Your task to perform on an android device: check the backup settings in the google photos Image 0: 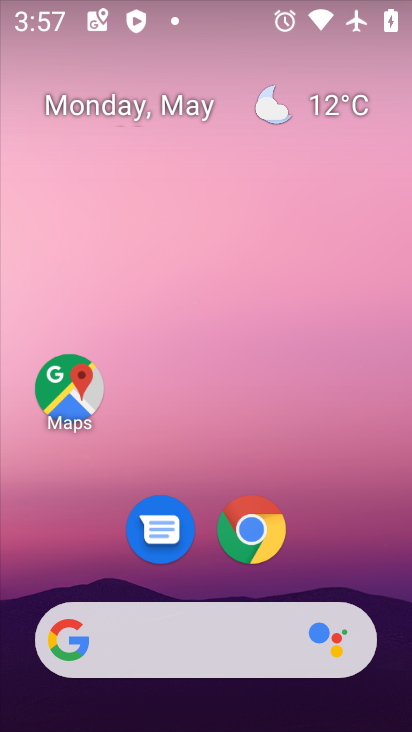
Step 0: drag from (296, 597) to (288, 75)
Your task to perform on an android device: check the backup settings in the google photos Image 1: 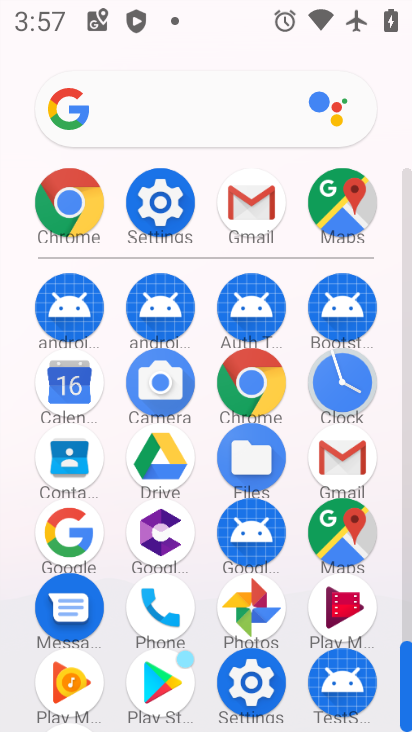
Step 1: click (255, 605)
Your task to perform on an android device: check the backup settings in the google photos Image 2: 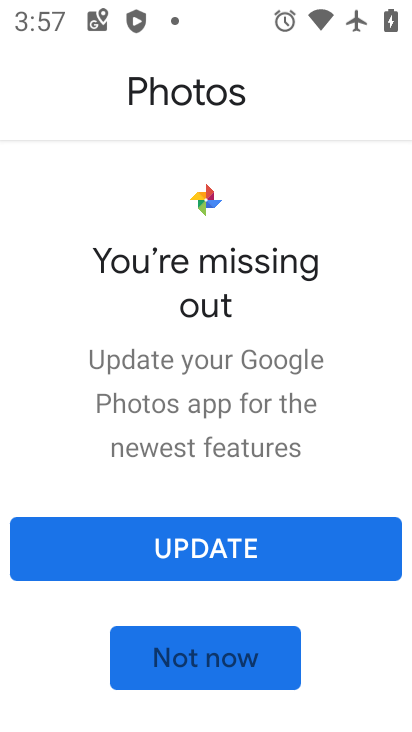
Step 2: click (237, 567)
Your task to perform on an android device: check the backup settings in the google photos Image 3: 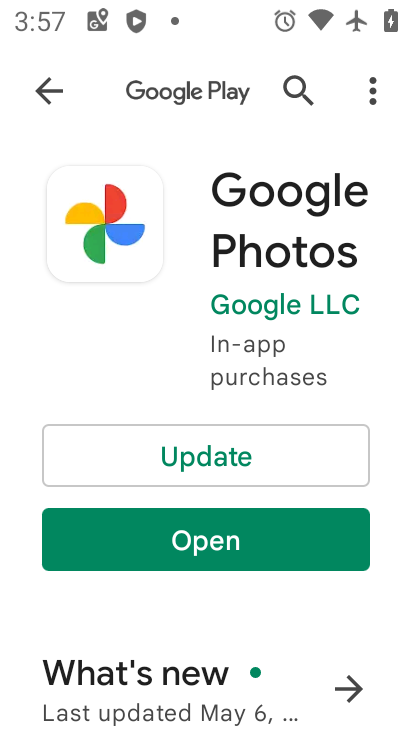
Step 3: click (220, 458)
Your task to perform on an android device: check the backup settings in the google photos Image 4: 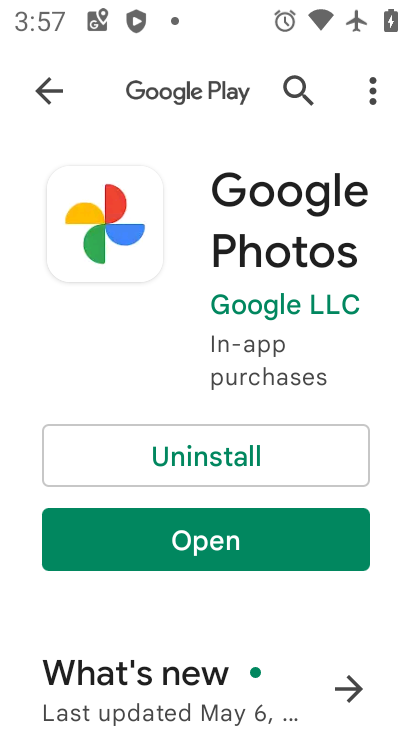
Step 4: click (207, 543)
Your task to perform on an android device: check the backup settings in the google photos Image 5: 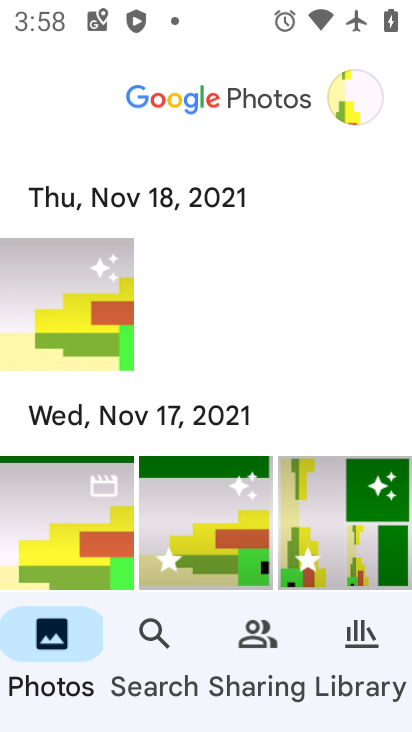
Step 5: click (365, 100)
Your task to perform on an android device: check the backup settings in the google photos Image 6: 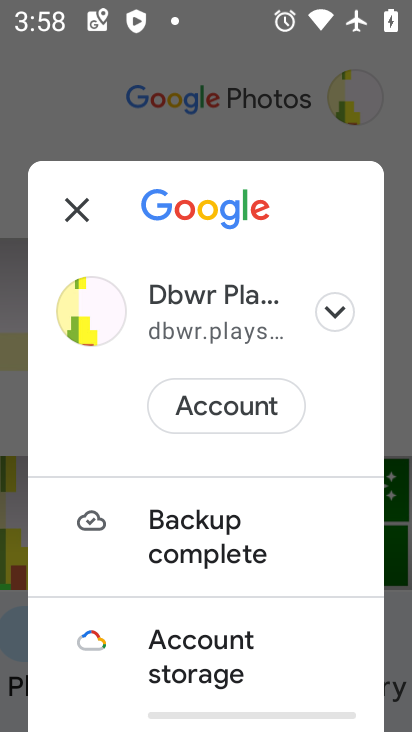
Step 6: drag from (297, 563) to (280, 346)
Your task to perform on an android device: check the backup settings in the google photos Image 7: 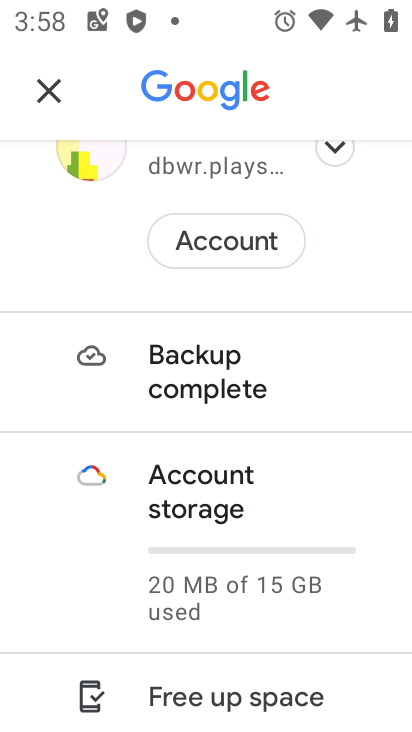
Step 7: drag from (146, 609) to (93, 369)
Your task to perform on an android device: check the backup settings in the google photos Image 8: 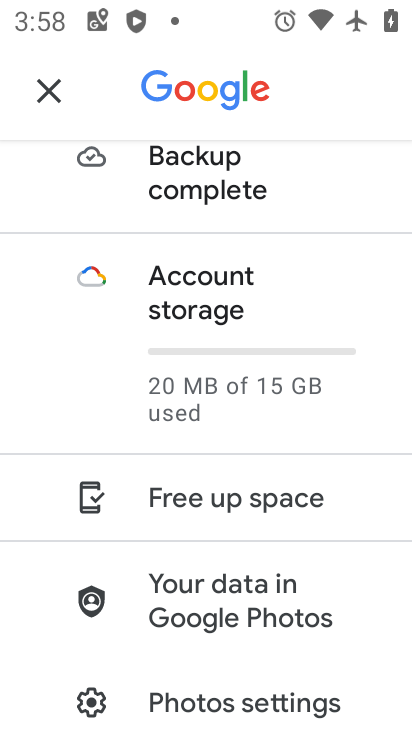
Step 8: click (354, 694)
Your task to perform on an android device: check the backup settings in the google photos Image 9: 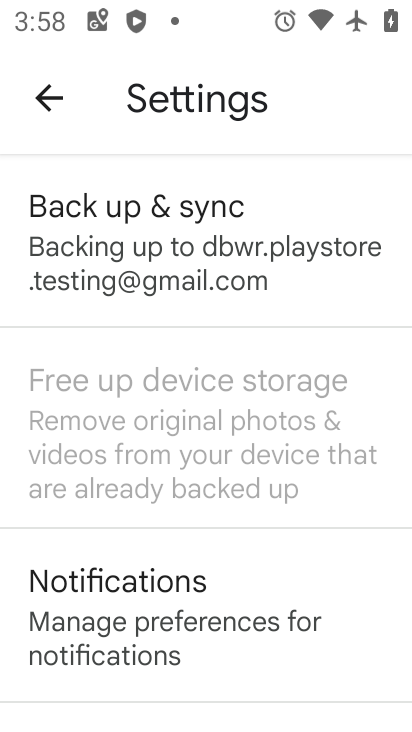
Step 9: click (166, 243)
Your task to perform on an android device: check the backup settings in the google photos Image 10: 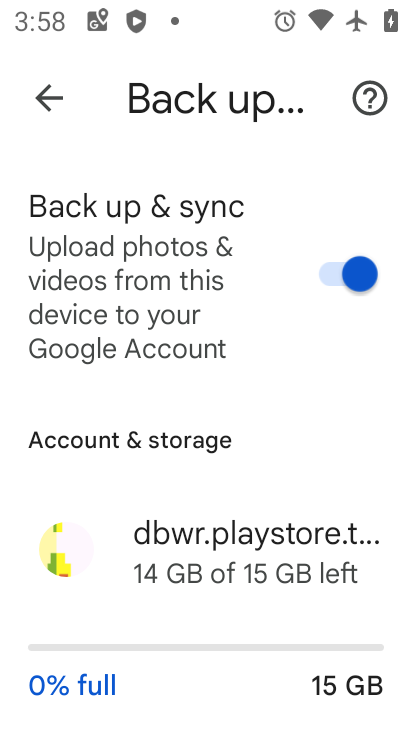
Step 10: task complete